Your task to perform on an android device: Open maps Image 0: 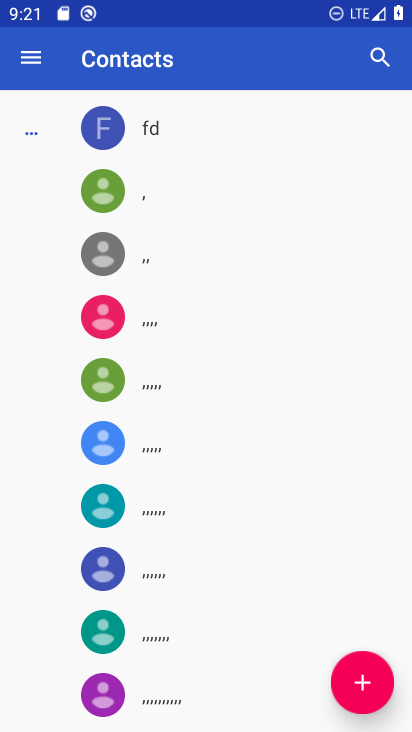
Step 0: press home button
Your task to perform on an android device: Open maps Image 1: 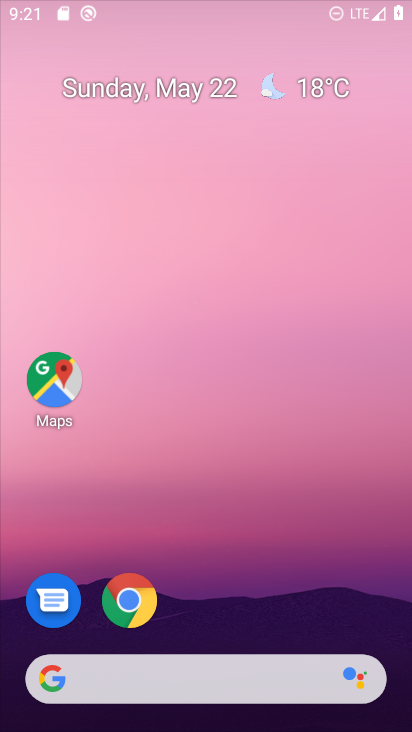
Step 1: drag from (366, 631) to (262, 28)
Your task to perform on an android device: Open maps Image 2: 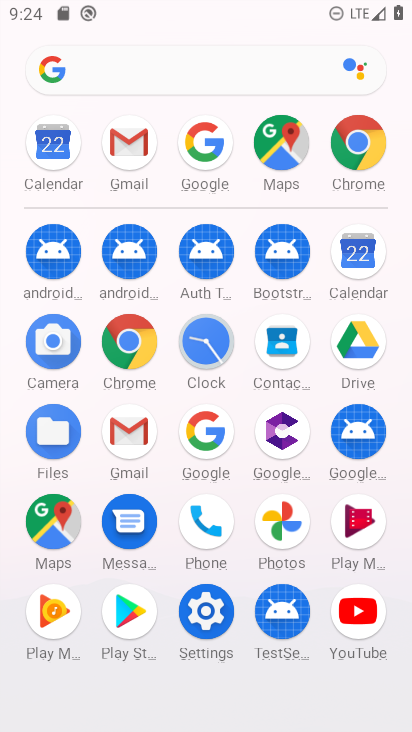
Step 2: click (285, 151)
Your task to perform on an android device: Open maps Image 3: 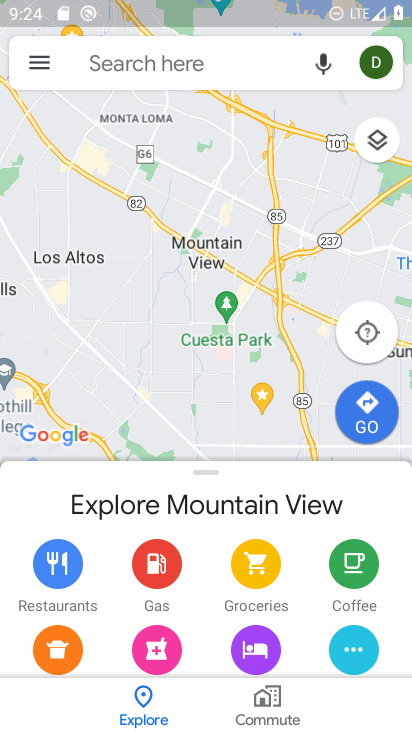
Step 3: task complete